Your task to perform on an android device: Go to Amazon Image 0: 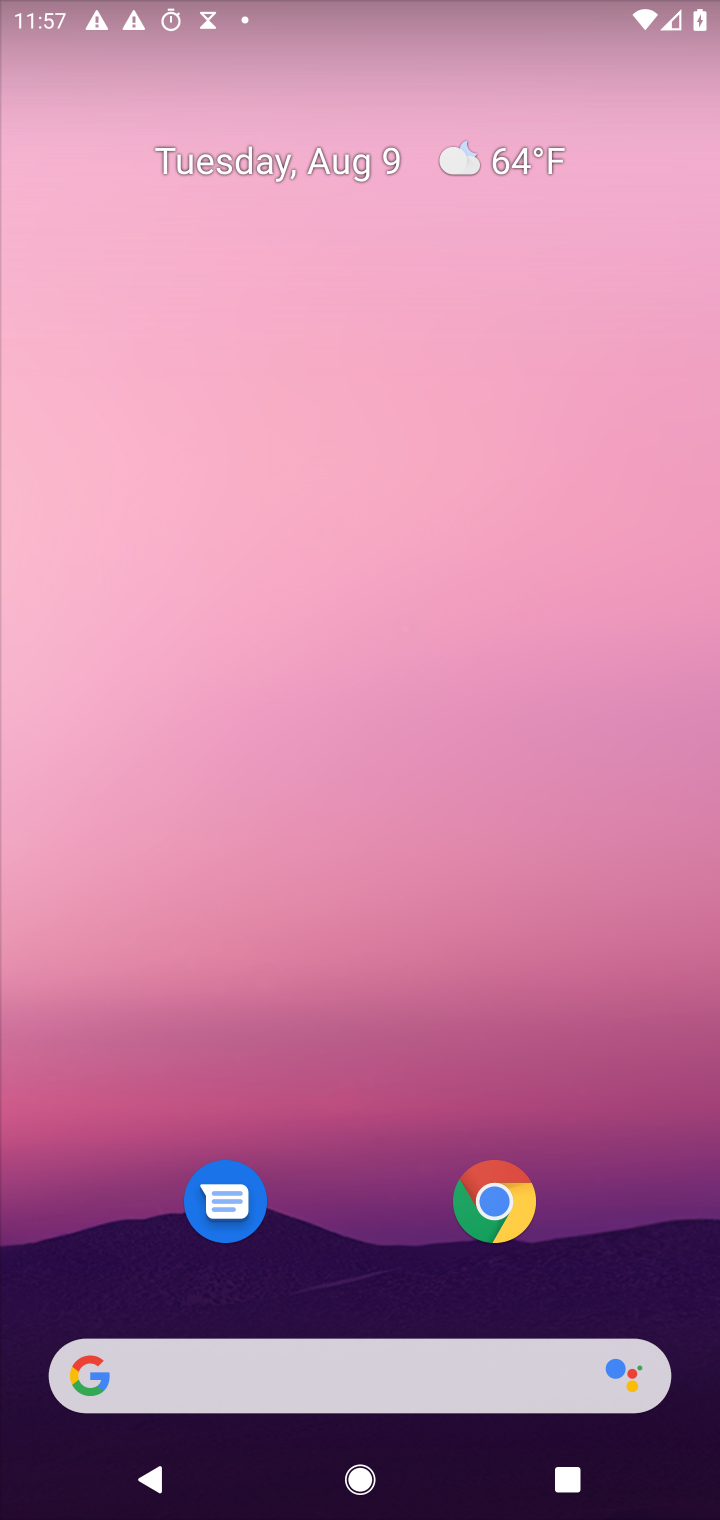
Step 0: press home button
Your task to perform on an android device: Go to Amazon Image 1: 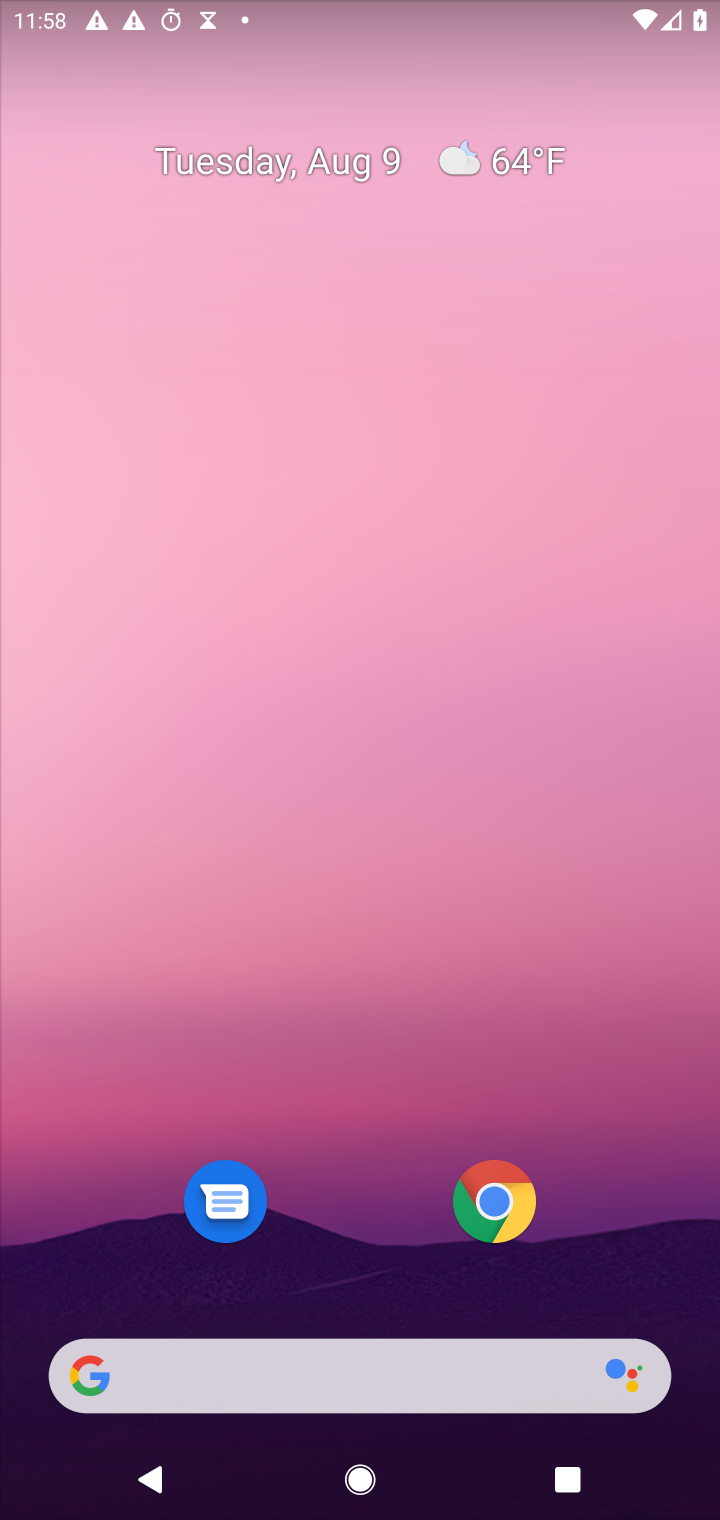
Step 1: drag from (358, 994) to (390, 286)
Your task to perform on an android device: Go to Amazon Image 2: 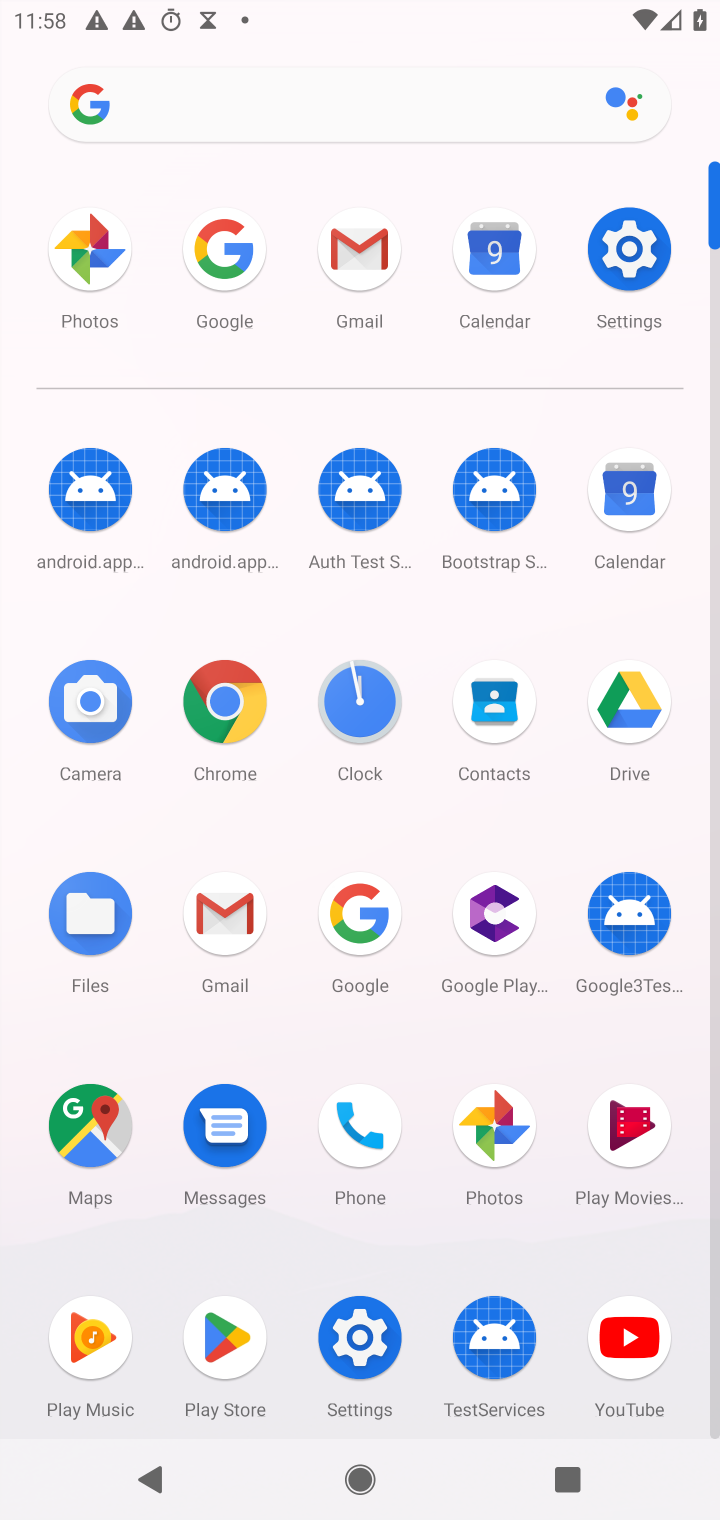
Step 2: click (240, 241)
Your task to perform on an android device: Go to Amazon Image 3: 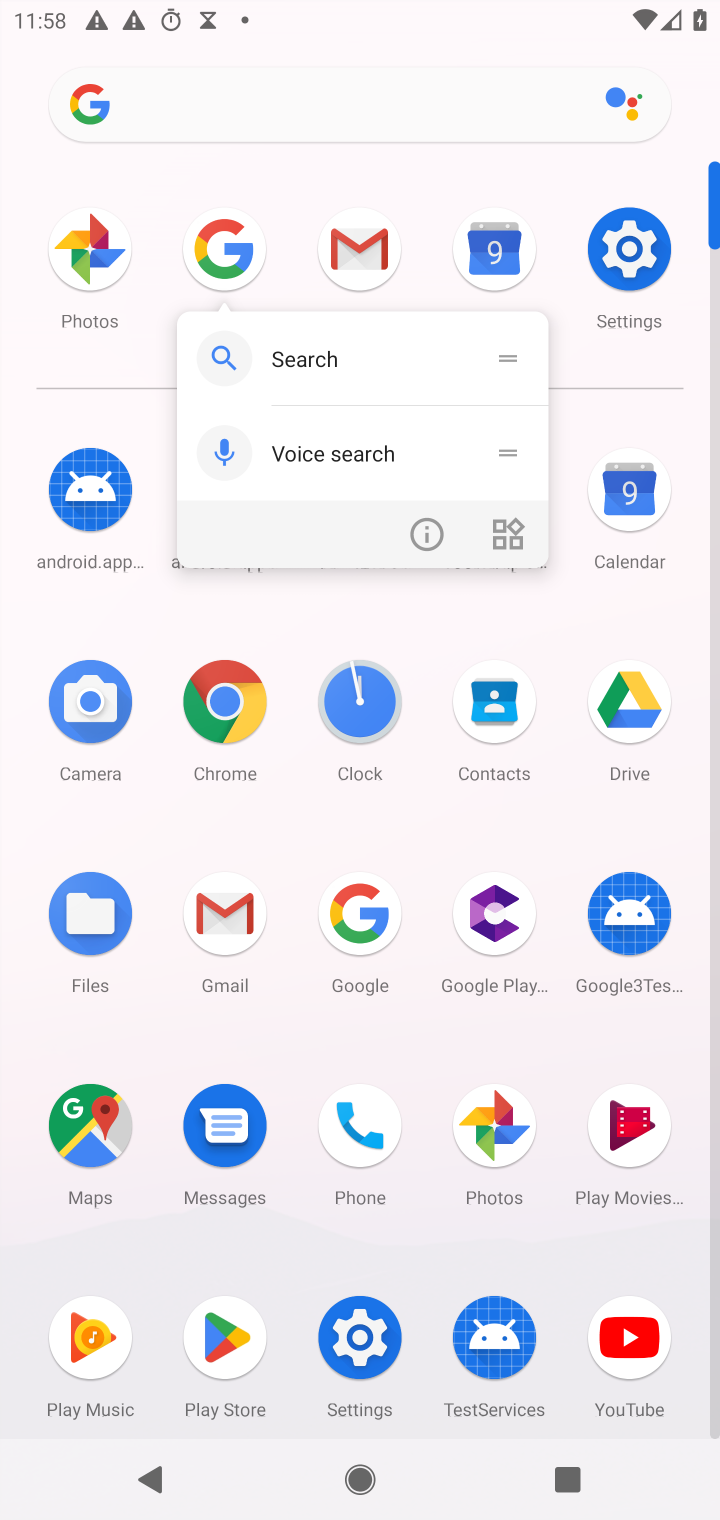
Step 3: click (220, 261)
Your task to perform on an android device: Go to Amazon Image 4: 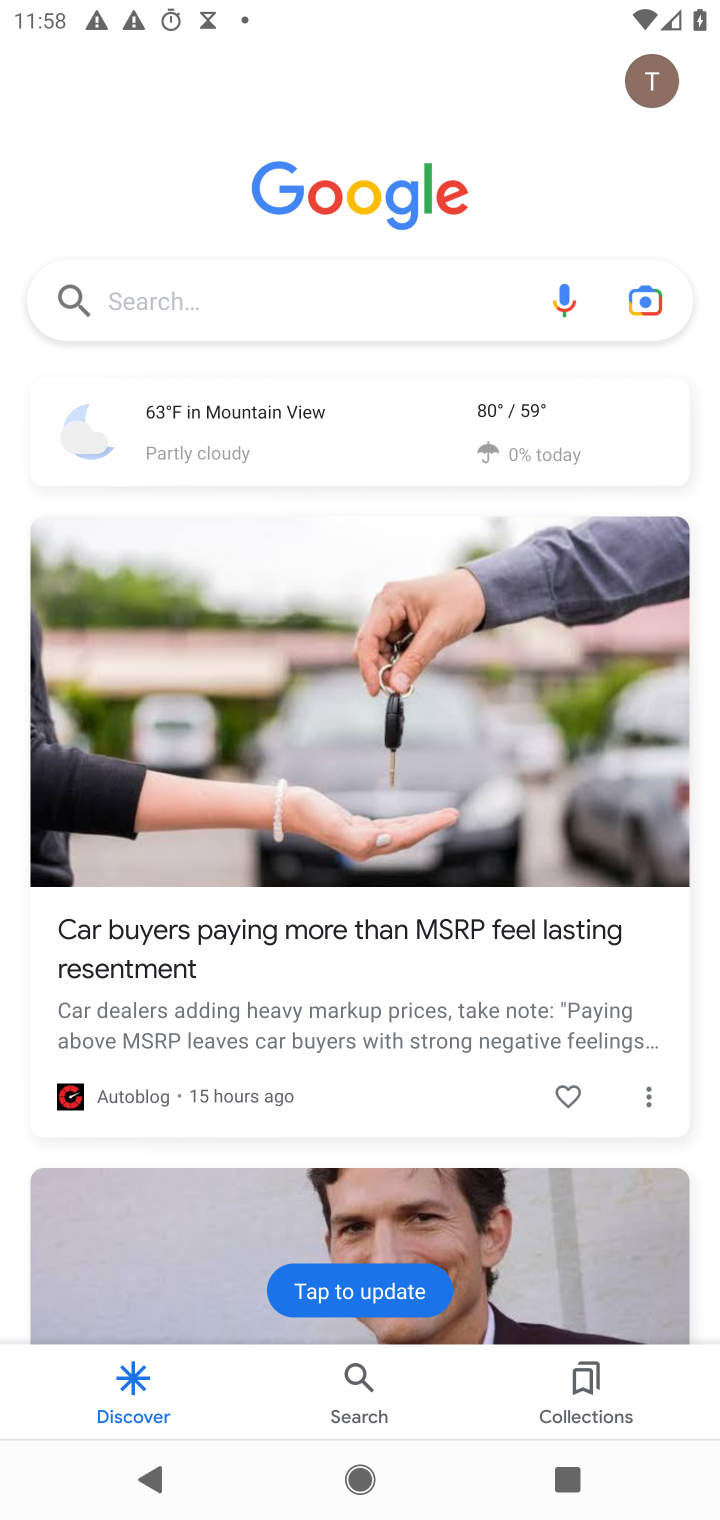
Step 4: click (248, 297)
Your task to perform on an android device: Go to Amazon Image 5: 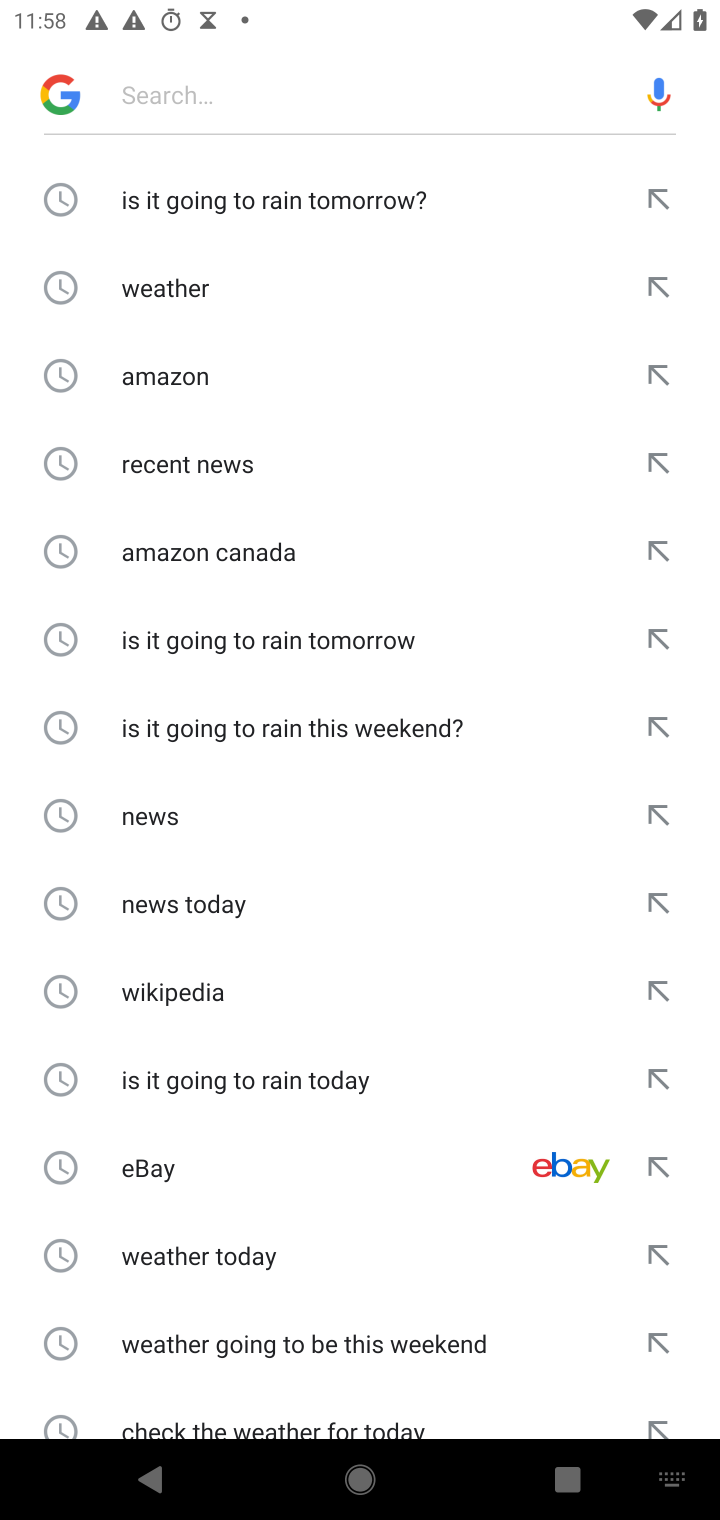
Step 5: type "Amazon"
Your task to perform on an android device: Go to Amazon Image 6: 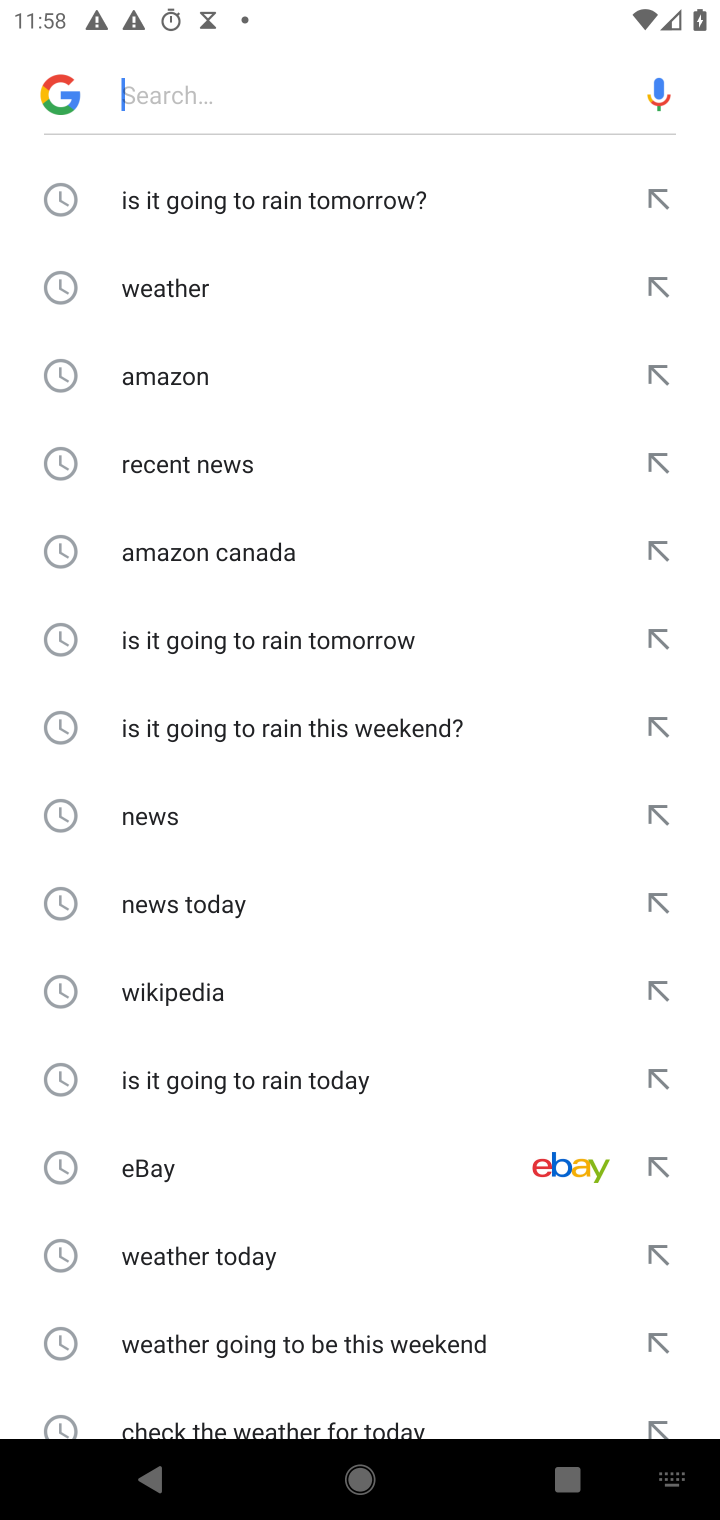
Step 6: click (223, 99)
Your task to perform on an android device: Go to Amazon Image 7: 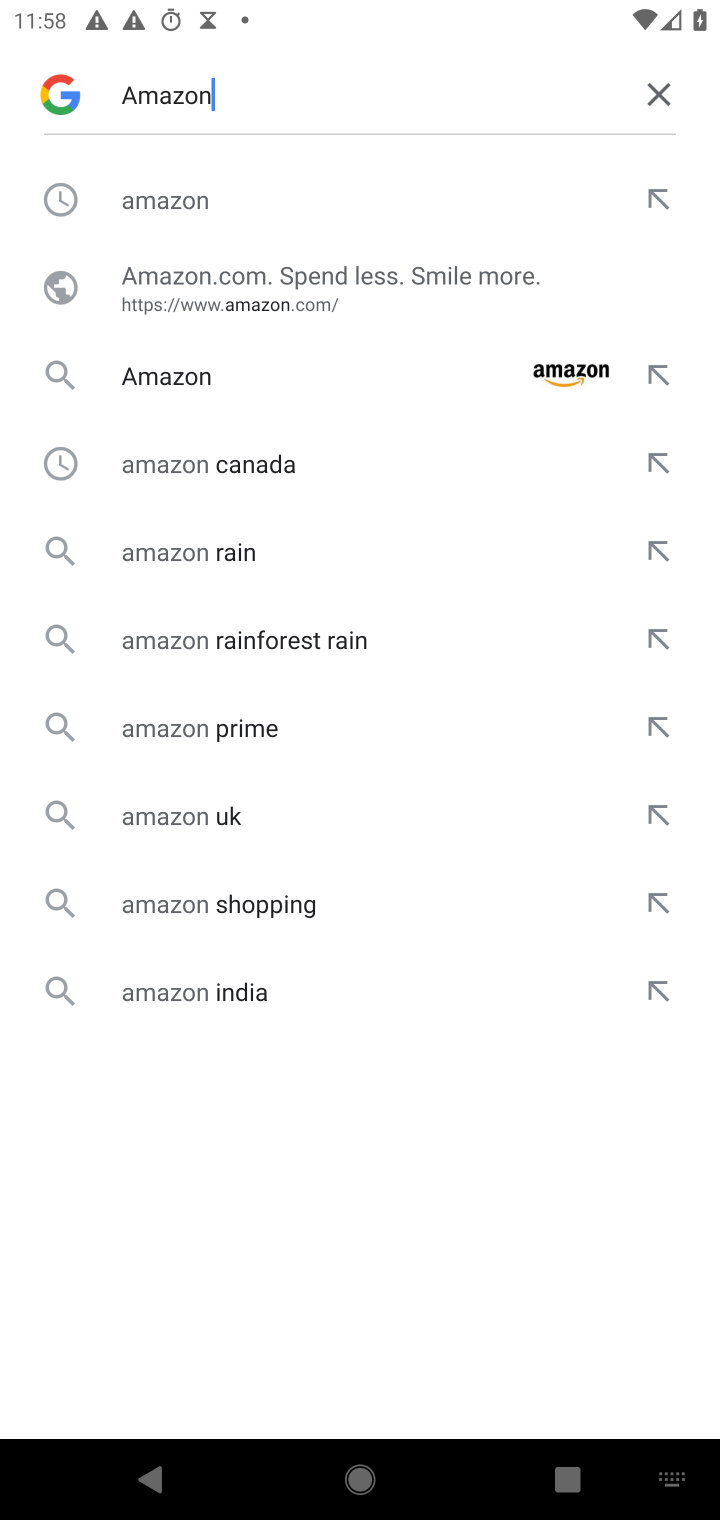
Step 7: press enter
Your task to perform on an android device: Go to Amazon Image 8: 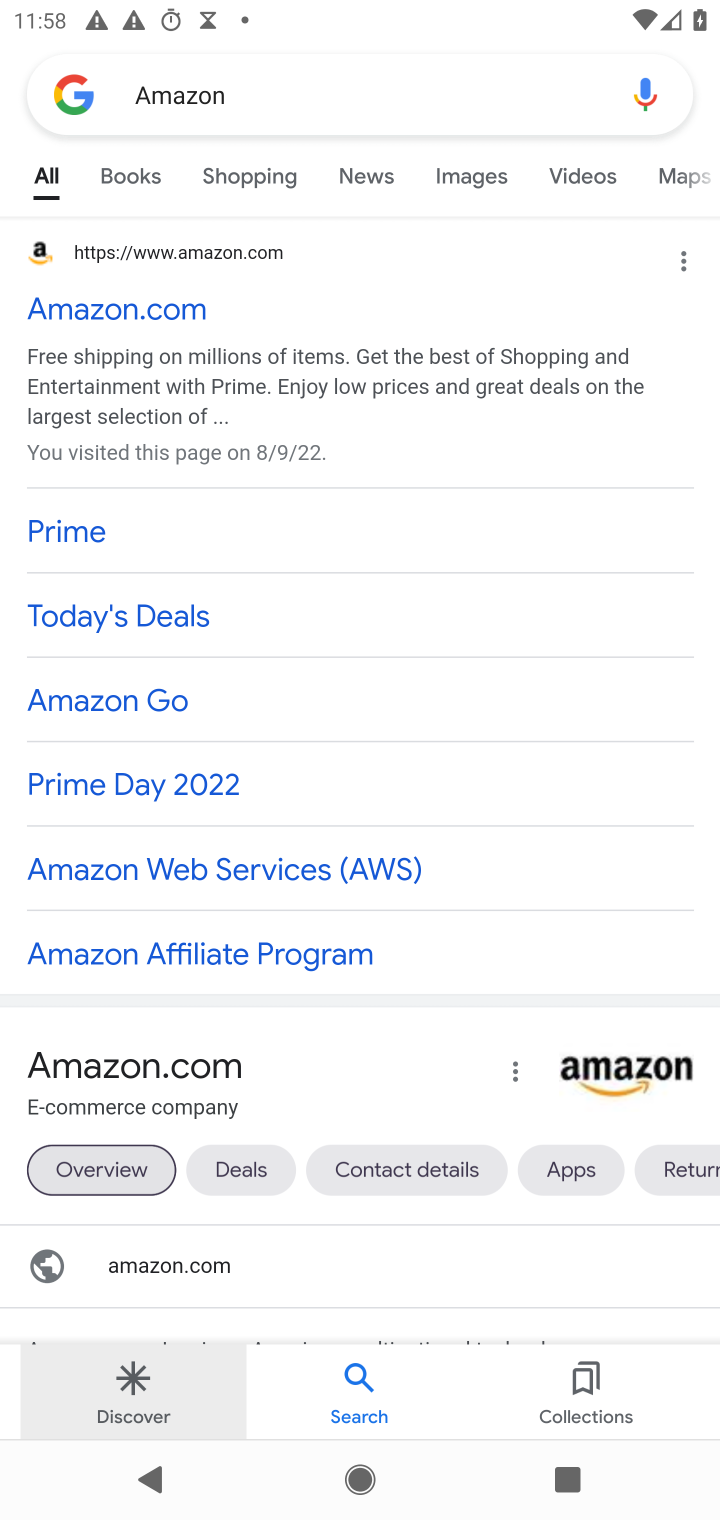
Step 8: click (169, 315)
Your task to perform on an android device: Go to Amazon Image 9: 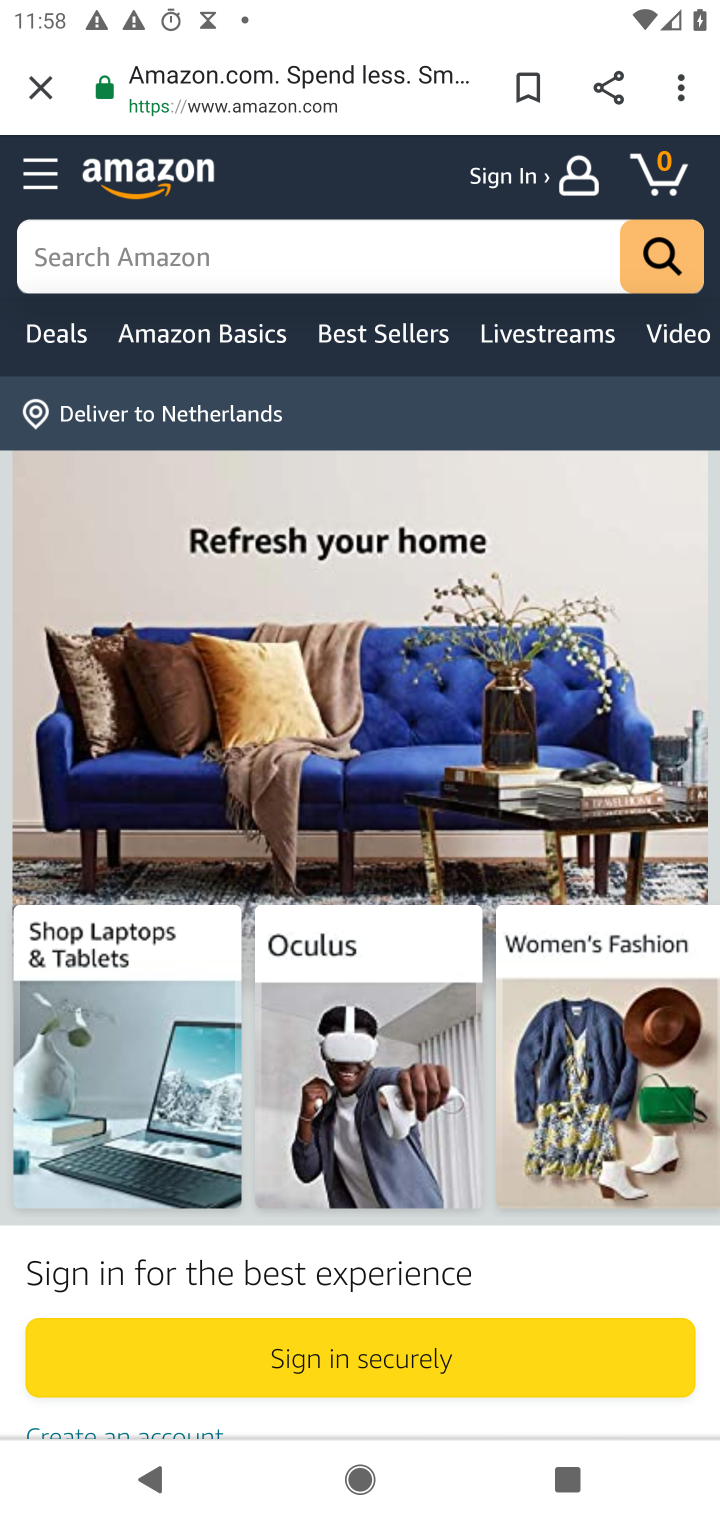
Step 9: task complete